Your task to perform on an android device: stop showing notifications on the lock screen Image 0: 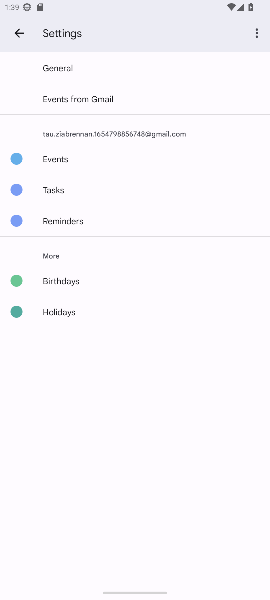
Step 0: drag from (131, 476) to (124, 252)
Your task to perform on an android device: stop showing notifications on the lock screen Image 1: 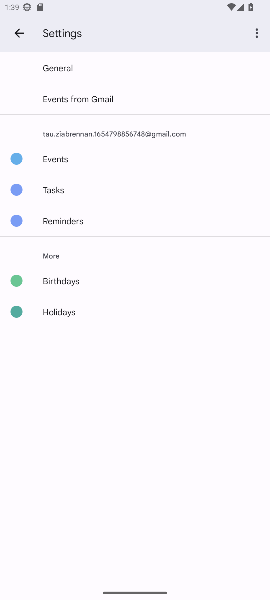
Step 1: press home button
Your task to perform on an android device: stop showing notifications on the lock screen Image 2: 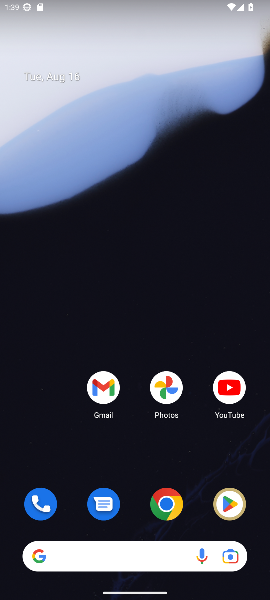
Step 2: drag from (131, 486) to (157, 138)
Your task to perform on an android device: stop showing notifications on the lock screen Image 3: 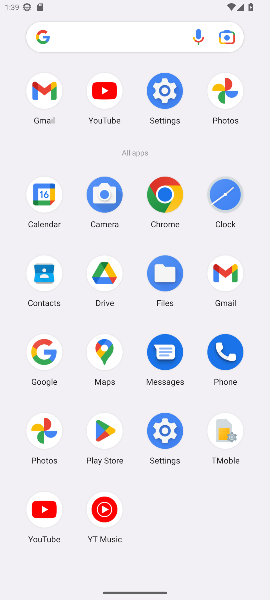
Step 3: click (164, 90)
Your task to perform on an android device: stop showing notifications on the lock screen Image 4: 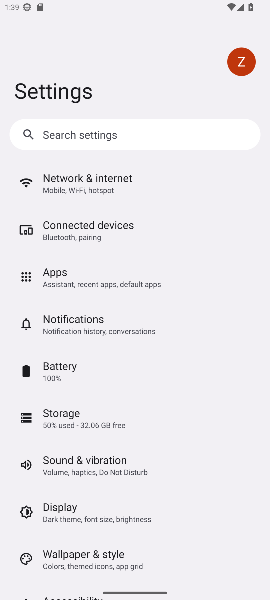
Step 4: click (76, 321)
Your task to perform on an android device: stop showing notifications on the lock screen Image 5: 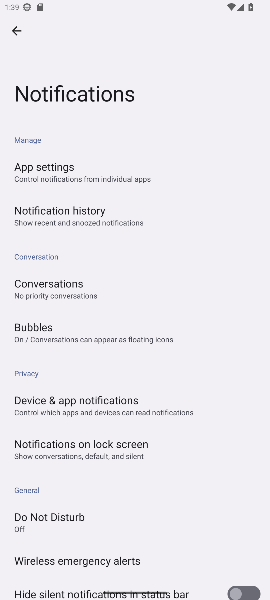
Step 5: click (84, 446)
Your task to perform on an android device: stop showing notifications on the lock screen Image 6: 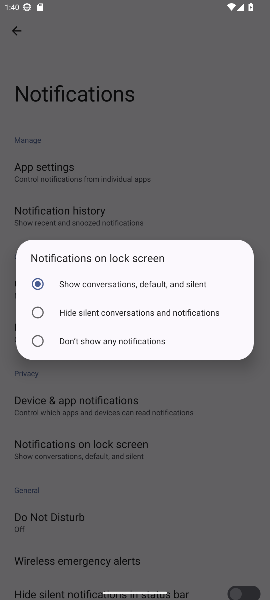
Step 6: click (34, 341)
Your task to perform on an android device: stop showing notifications on the lock screen Image 7: 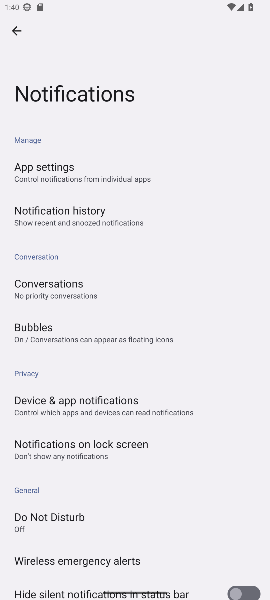
Step 7: task complete